Your task to perform on an android device: toggle improve location accuracy Image 0: 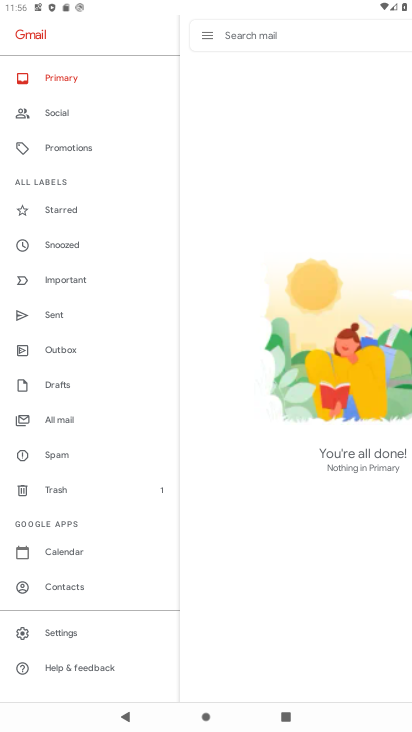
Step 0: press home button
Your task to perform on an android device: toggle improve location accuracy Image 1: 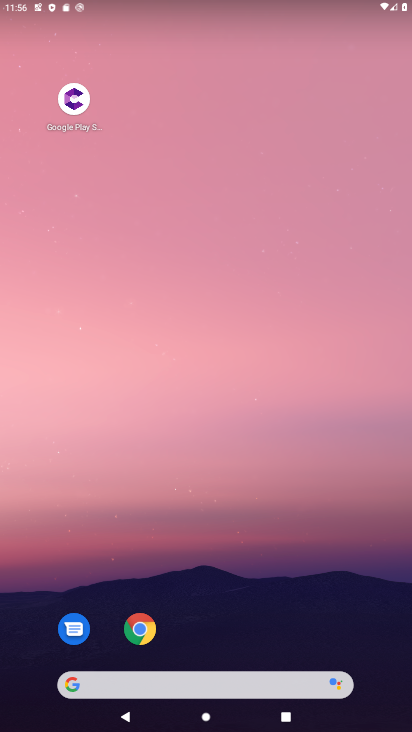
Step 1: drag from (258, 619) to (195, 120)
Your task to perform on an android device: toggle improve location accuracy Image 2: 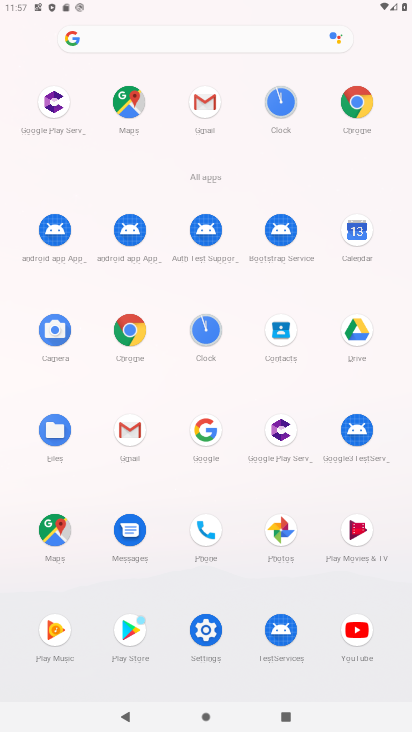
Step 2: click (204, 634)
Your task to perform on an android device: toggle improve location accuracy Image 3: 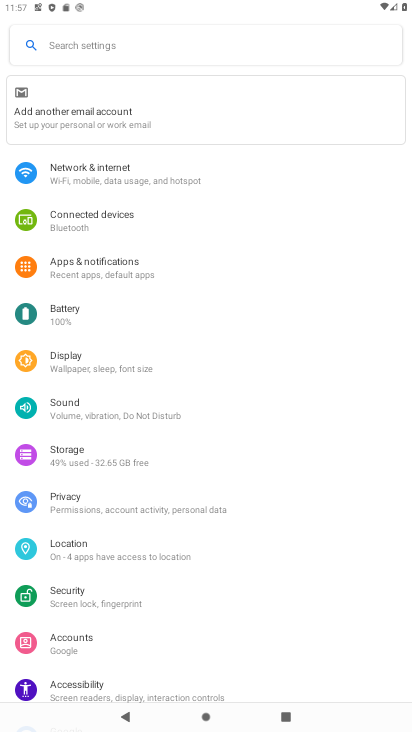
Step 3: click (116, 552)
Your task to perform on an android device: toggle improve location accuracy Image 4: 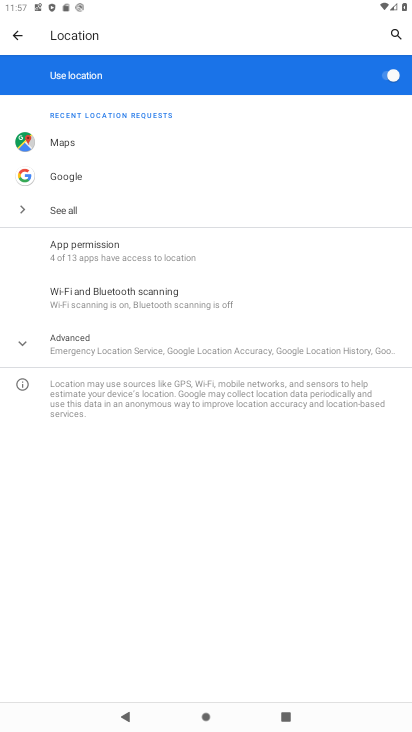
Step 4: click (186, 349)
Your task to perform on an android device: toggle improve location accuracy Image 5: 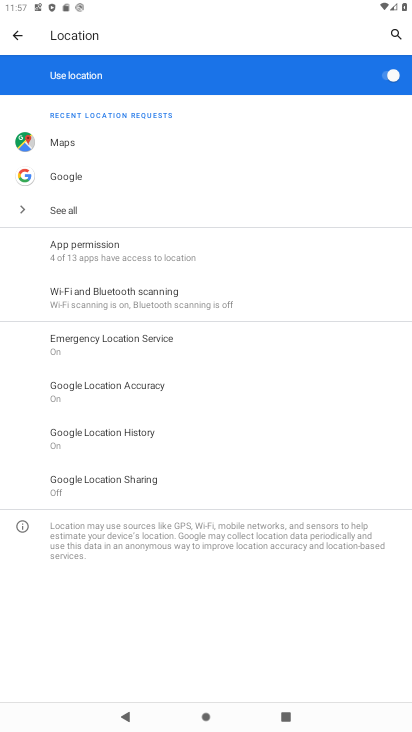
Step 5: click (185, 384)
Your task to perform on an android device: toggle improve location accuracy Image 6: 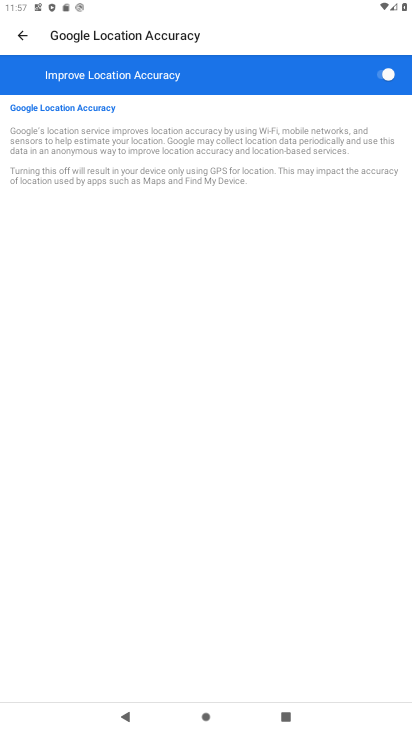
Step 6: click (383, 80)
Your task to perform on an android device: toggle improve location accuracy Image 7: 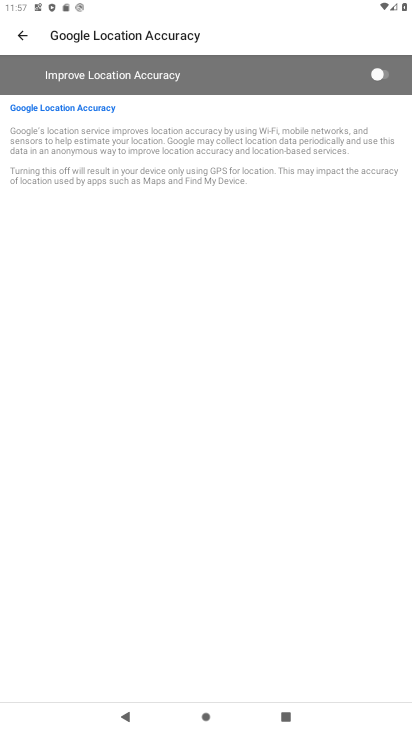
Step 7: task complete